Your task to perform on an android device: visit the assistant section in the google photos Image 0: 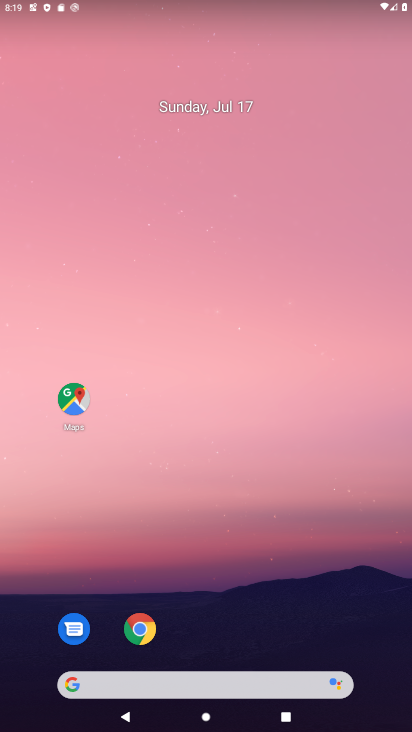
Step 0: drag from (232, 719) to (218, 212)
Your task to perform on an android device: visit the assistant section in the google photos Image 1: 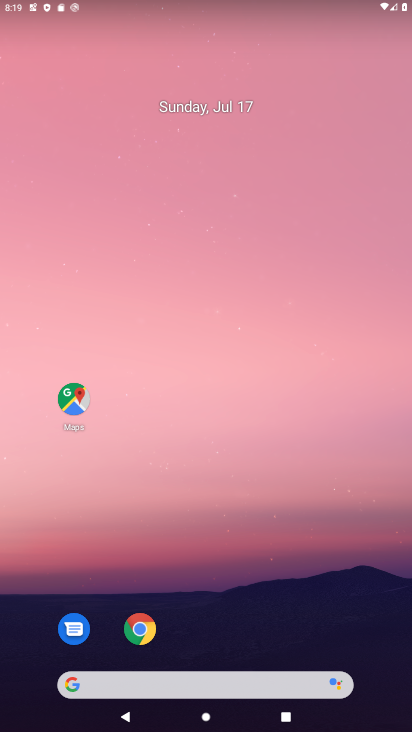
Step 1: drag from (239, 724) to (252, 76)
Your task to perform on an android device: visit the assistant section in the google photos Image 2: 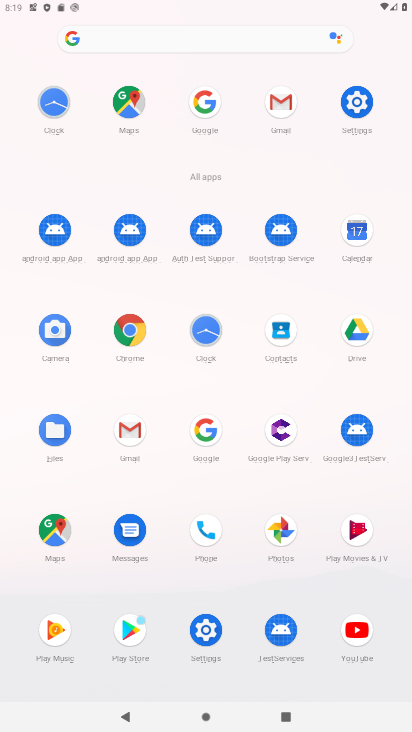
Step 2: click (281, 526)
Your task to perform on an android device: visit the assistant section in the google photos Image 3: 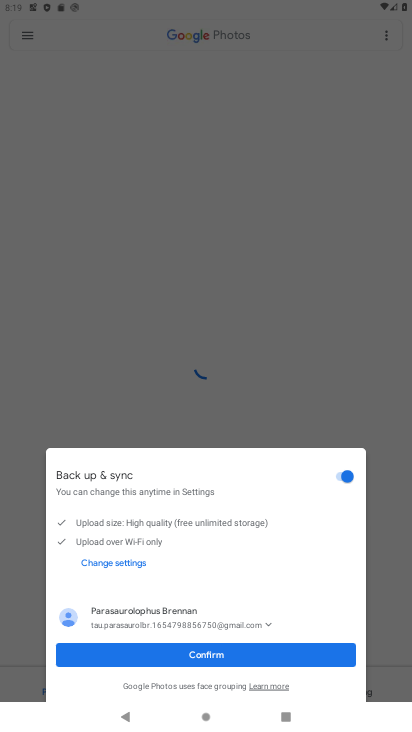
Step 3: click (199, 657)
Your task to perform on an android device: visit the assistant section in the google photos Image 4: 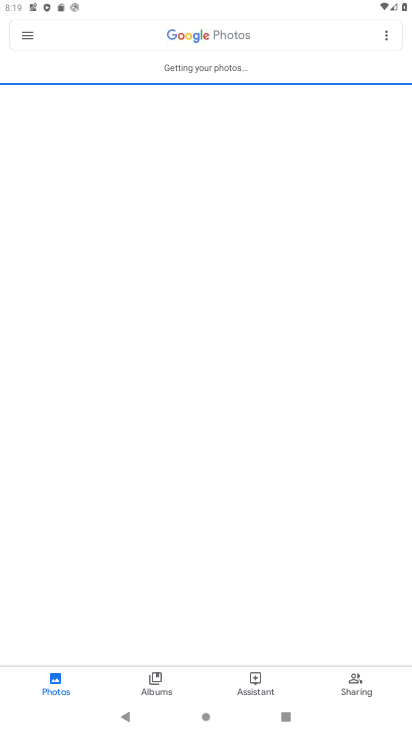
Step 4: click (252, 677)
Your task to perform on an android device: visit the assistant section in the google photos Image 5: 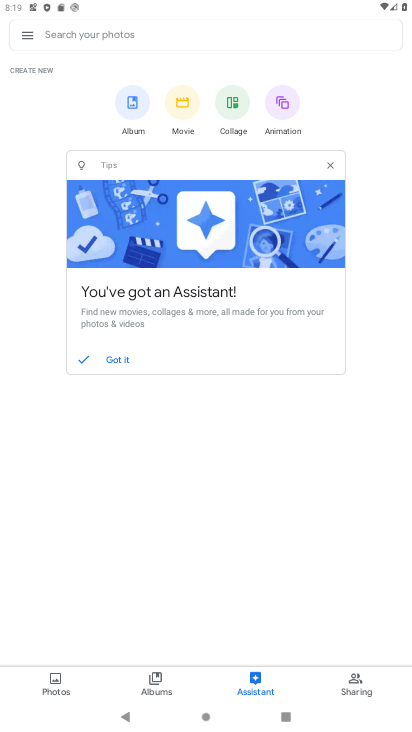
Step 5: task complete